Your task to perform on an android device: clear all cookies in the chrome app Image 0: 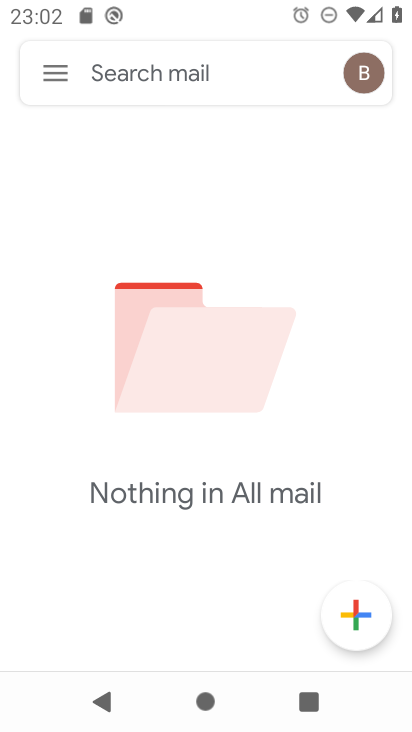
Step 0: press home button
Your task to perform on an android device: clear all cookies in the chrome app Image 1: 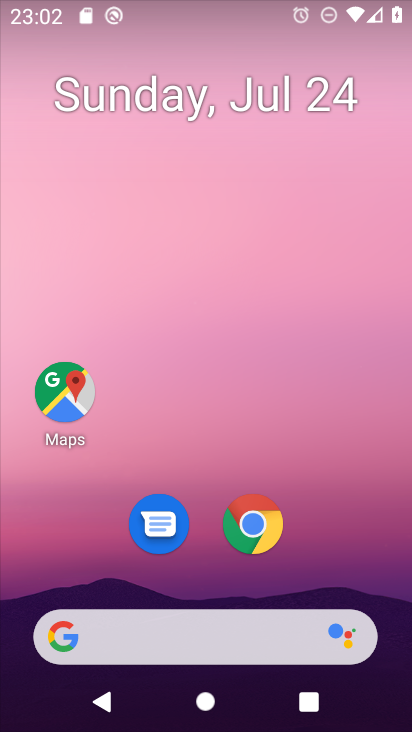
Step 1: click (254, 541)
Your task to perform on an android device: clear all cookies in the chrome app Image 2: 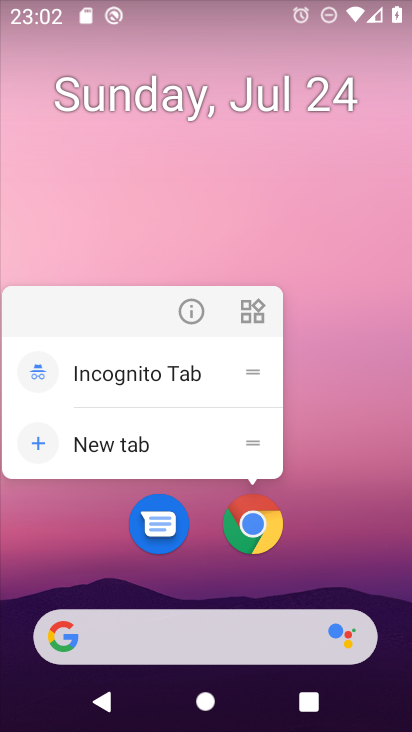
Step 2: click (245, 514)
Your task to perform on an android device: clear all cookies in the chrome app Image 3: 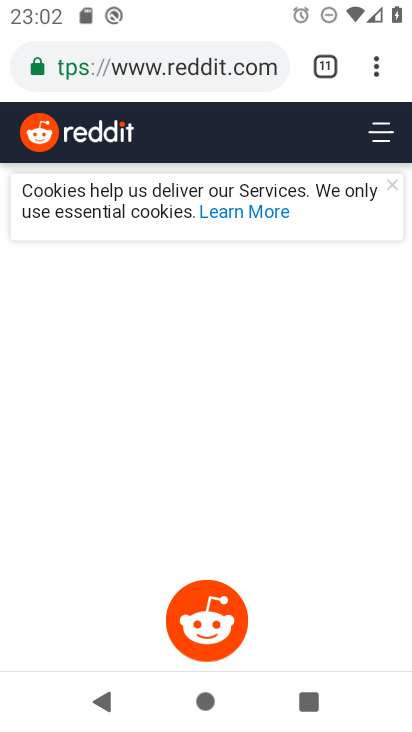
Step 3: drag from (373, 68) to (278, 519)
Your task to perform on an android device: clear all cookies in the chrome app Image 4: 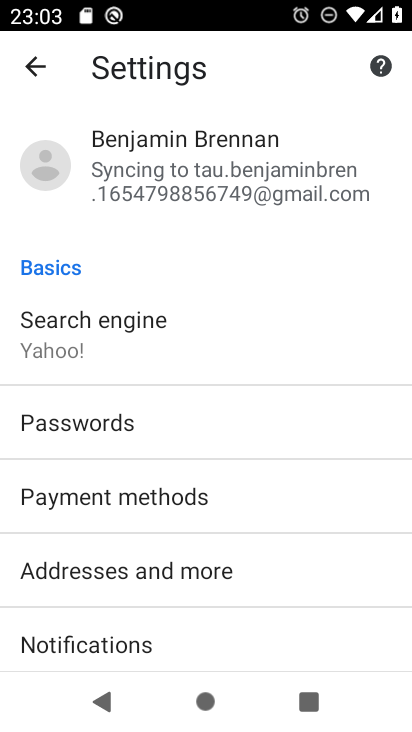
Step 4: drag from (260, 612) to (288, 230)
Your task to perform on an android device: clear all cookies in the chrome app Image 5: 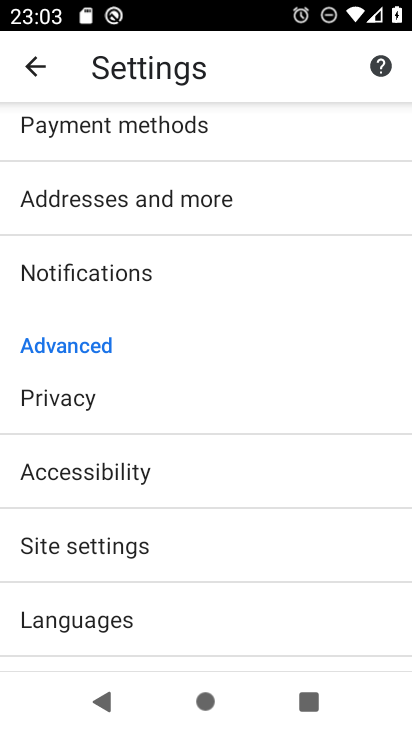
Step 5: click (78, 392)
Your task to perform on an android device: clear all cookies in the chrome app Image 6: 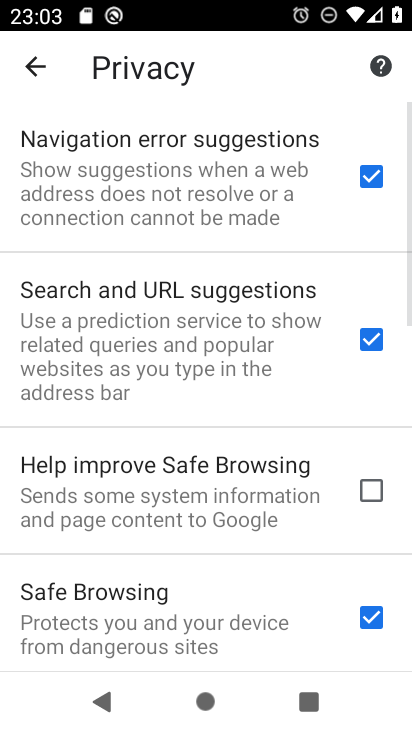
Step 6: drag from (267, 645) to (383, 83)
Your task to perform on an android device: clear all cookies in the chrome app Image 7: 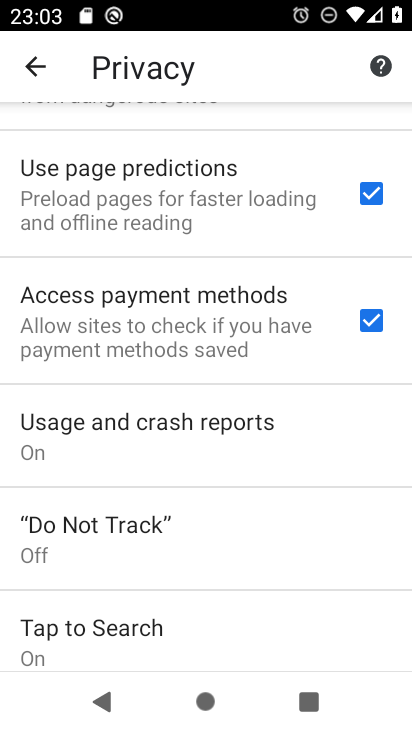
Step 7: drag from (235, 580) to (331, 2)
Your task to perform on an android device: clear all cookies in the chrome app Image 8: 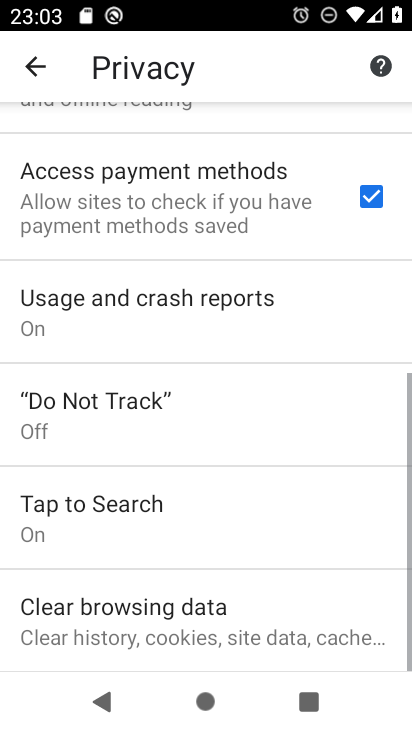
Step 8: click (202, 616)
Your task to perform on an android device: clear all cookies in the chrome app Image 9: 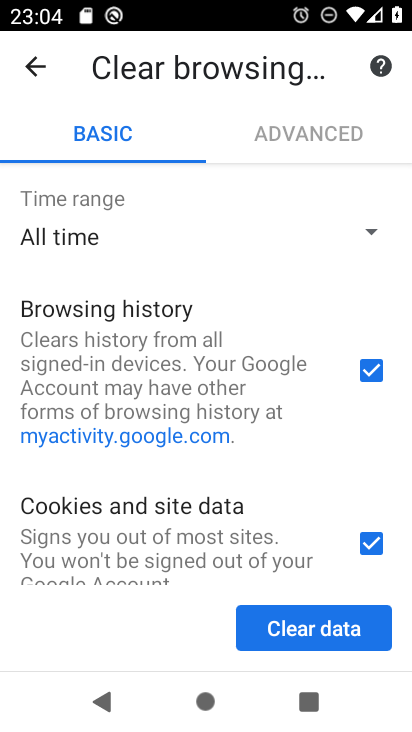
Step 9: drag from (237, 456) to (253, 167)
Your task to perform on an android device: clear all cookies in the chrome app Image 10: 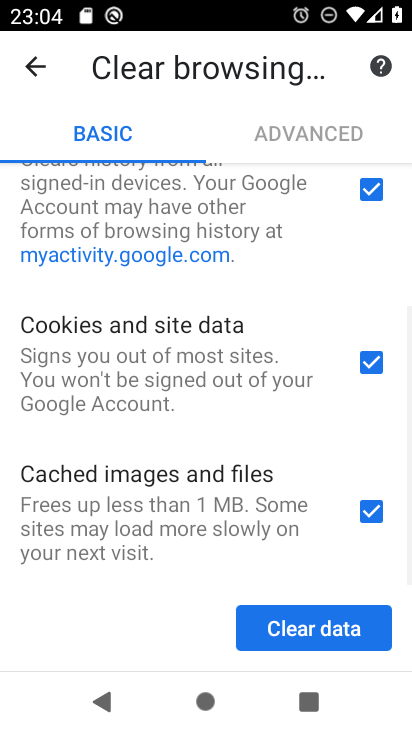
Step 10: click (367, 170)
Your task to perform on an android device: clear all cookies in the chrome app Image 11: 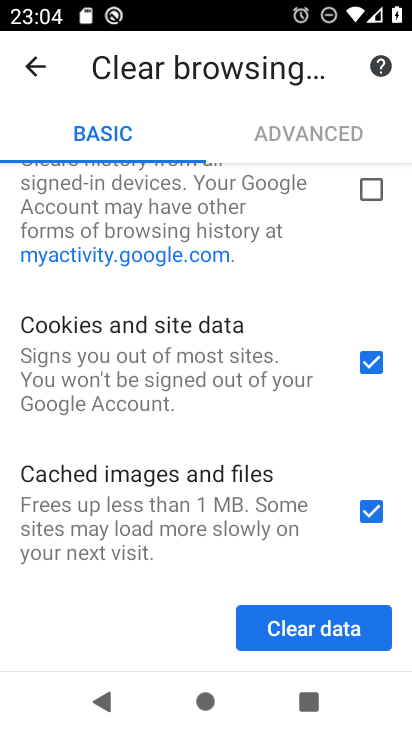
Step 11: click (373, 519)
Your task to perform on an android device: clear all cookies in the chrome app Image 12: 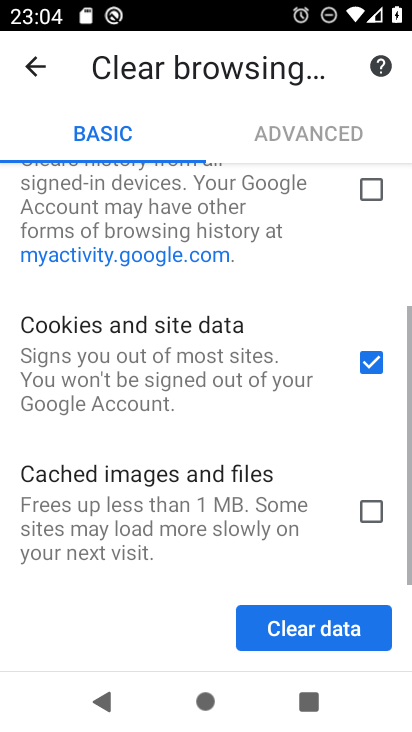
Step 12: click (345, 631)
Your task to perform on an android device: clear all cookies in the chrome app Image 13: 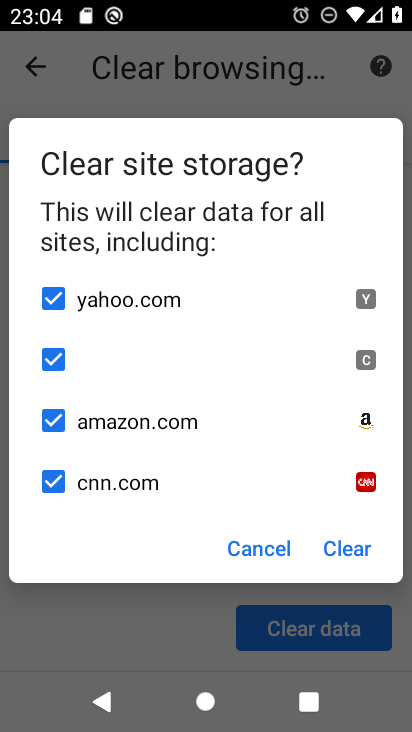
Step 13: click (354, 556)
Your task to perform on an android device: clear all cookies in the chrome app Image 14: 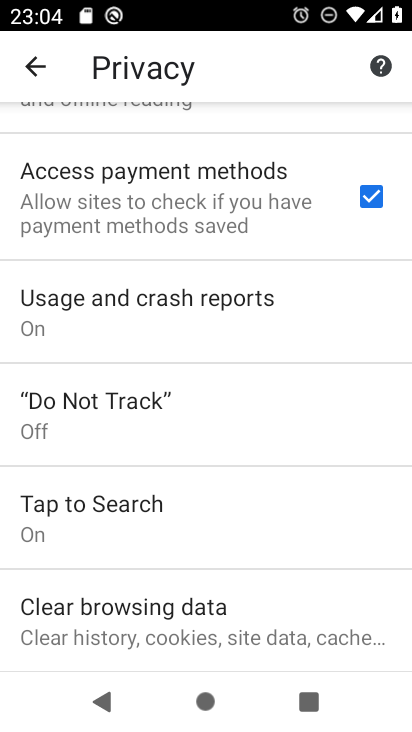
Step 14: task complete